Your task to perform on an android device: change the upload size in google photos Image 0: 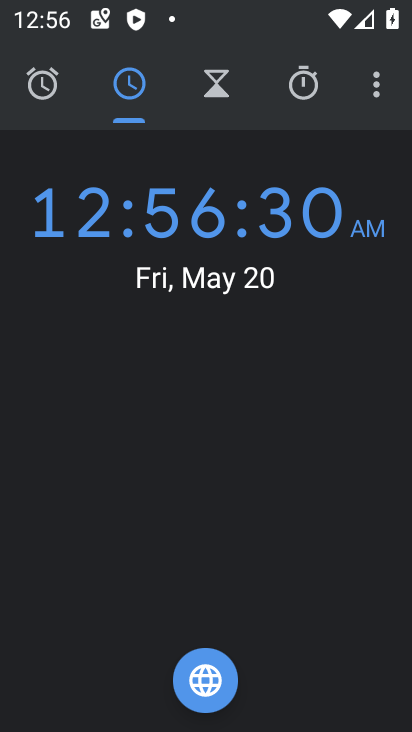
Step 0: press home button
Your task to perform on an android device: change the upload size in google photos Image 1: 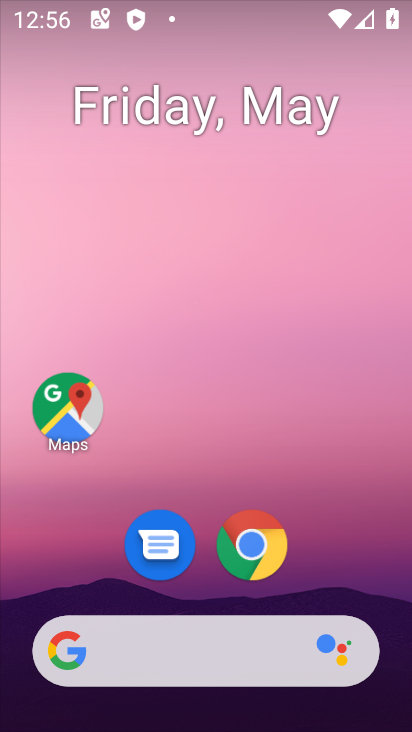
Step 1: drag from (334, 551) to (329, 88)
Your task to perform on an android device: change the upload size in google photos Image 2: 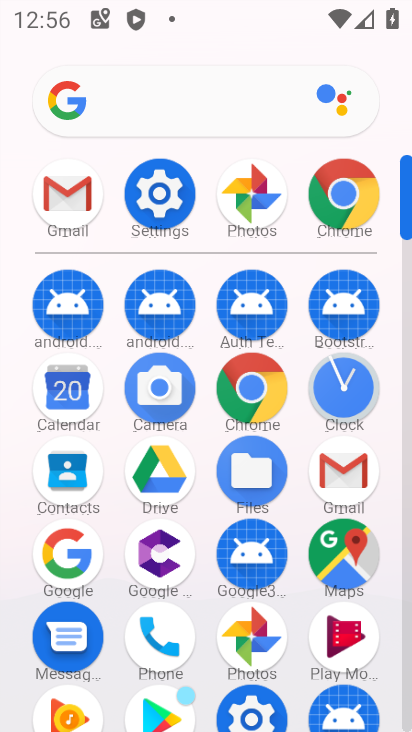
Step 2: click (241, 630)
Your task to perform on an android device: change the upload size in google photos Image 3: 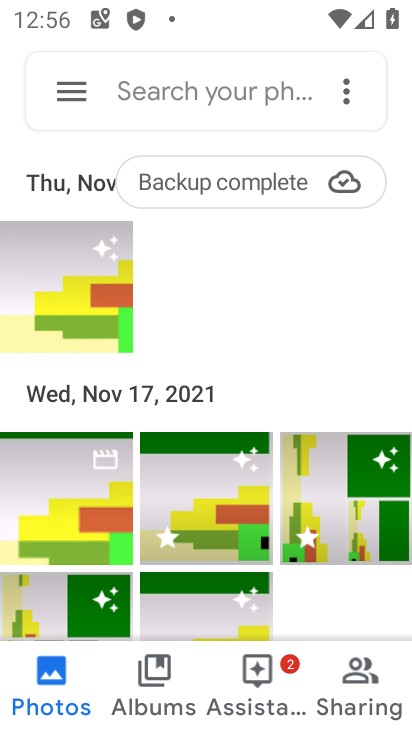
Step 3: click (72, 79)
Your task to perform on an android device: change the upload size in google photos Image 4: 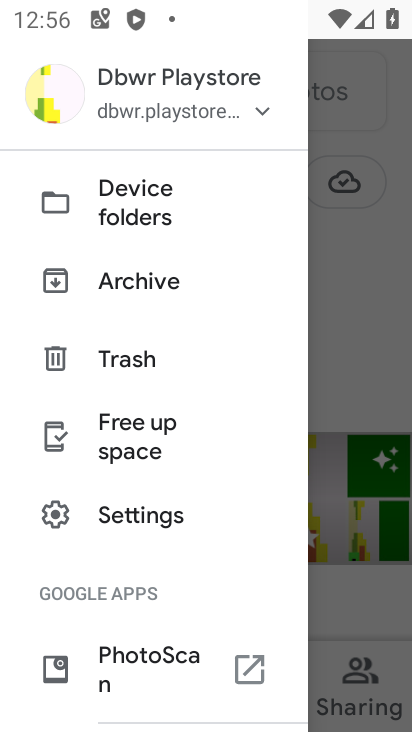
Step 4: click (139, 507)
Your task to perform on an android device: change the upload size in google photos Image 5: 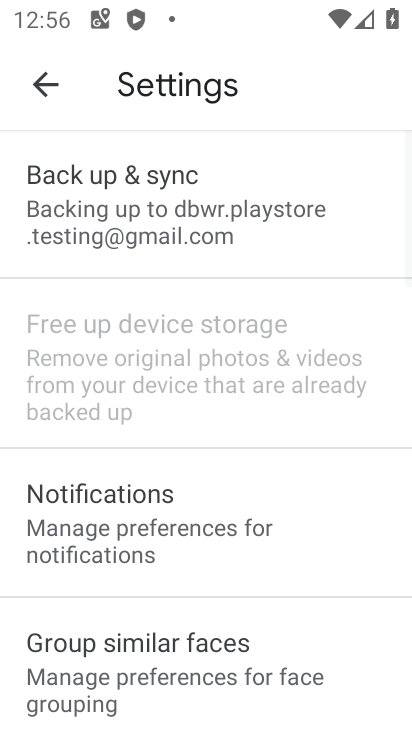
Step 5: click (197, 205)
Your task to perform on an android device: change the upload size in google photos Image 6: 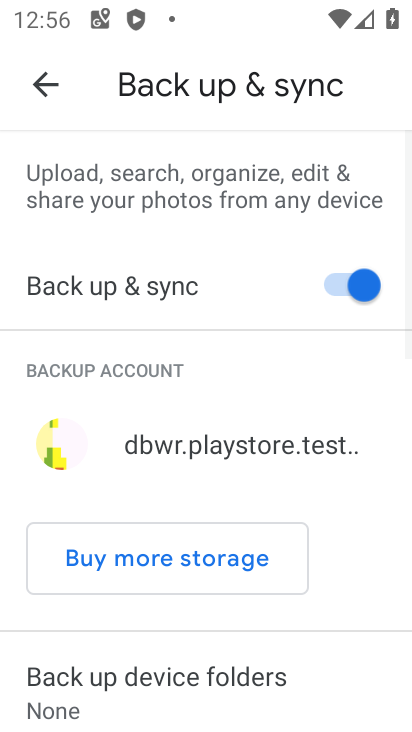
Step 6: drag from (348, 664) to (242, 247)
Your task to perform on an android device: change the upload size in google photos Image 7: 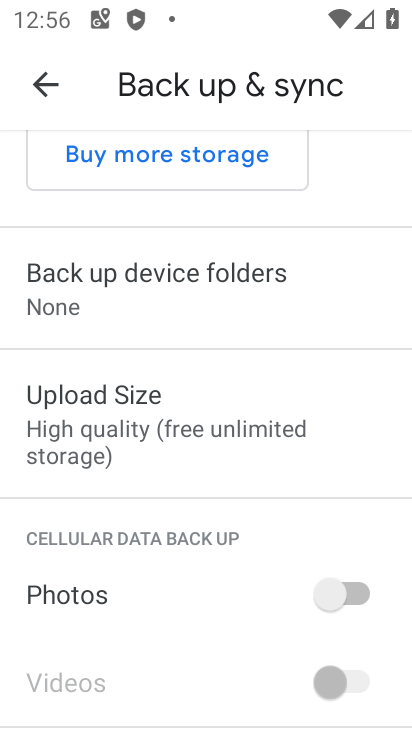
Step 7: click (191, 452)
Your task to perform on an android device: change the upload size in google photos Image 8: 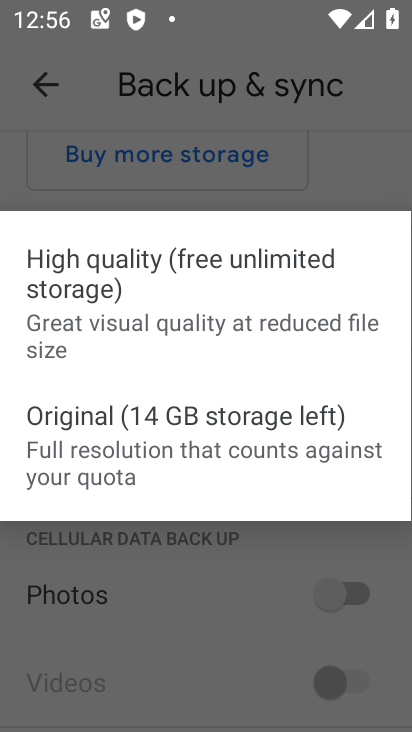
Step 8: click (218, 295)
Your task to perform on an android device: change the upload size in google photos Image 9: 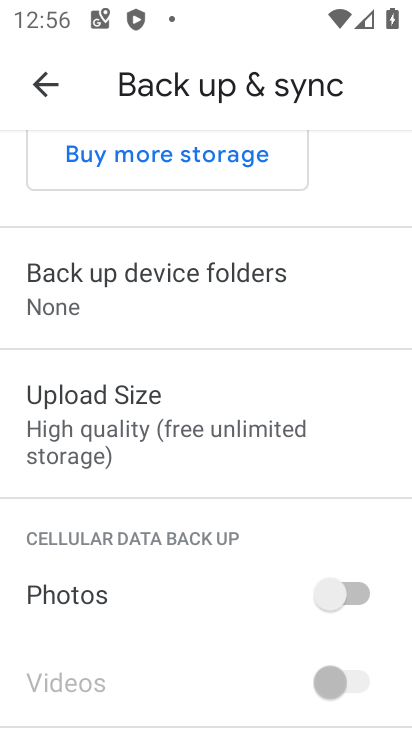
Step 9: click (225, 443)
Your task to perform on an android device: change the upload size in google photos Image 10: 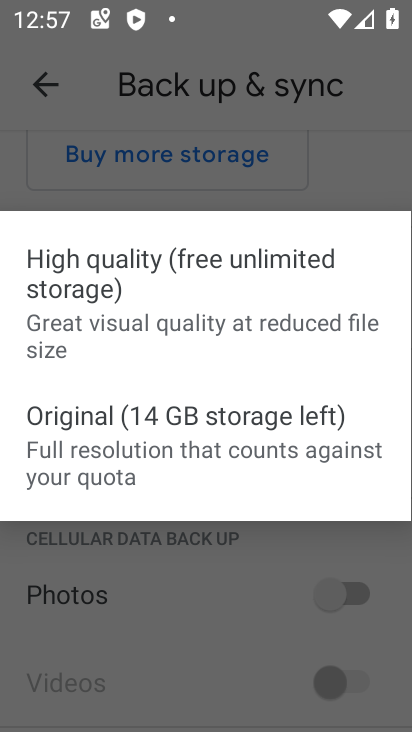
Step 10: click (217, 439)
Your task to perform on an android device: change the upload size in google photos Image 11: 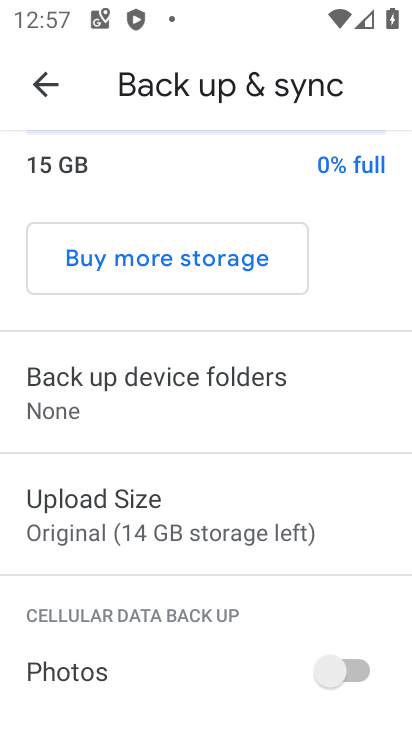
Step 11: task complete